Your task to perform on an android device: uninstall "Lyft - Rideshare, Bikes, Scooters & Transit" Image 0: 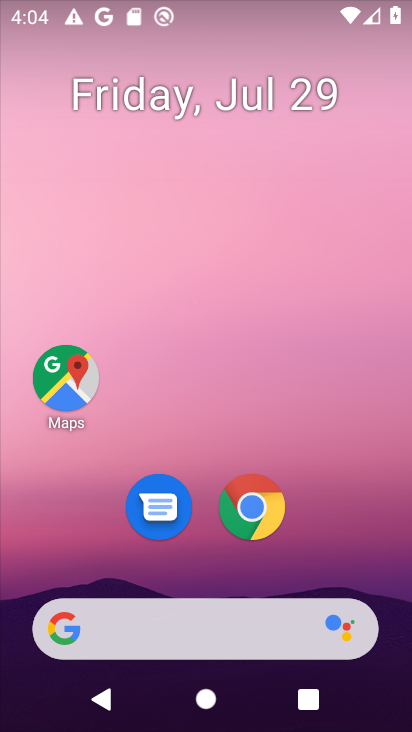
Step 0: task impossible